Your task to perform on an android device: add a label to a message in the gmail app Image 0: 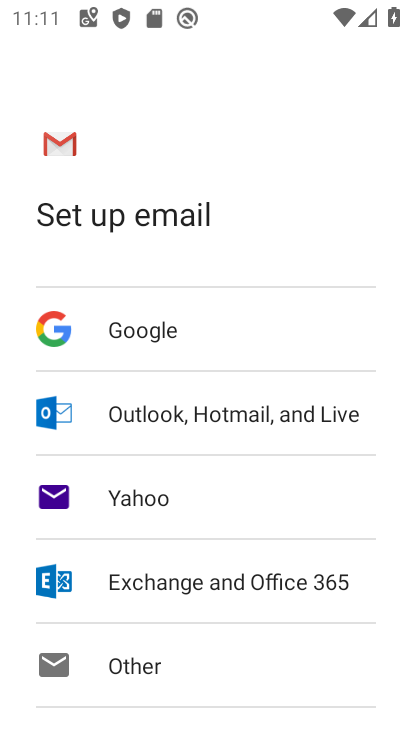
Step 0: press home button
Your task to perform on an android device: add a label to a message in the gmail app Image 1: 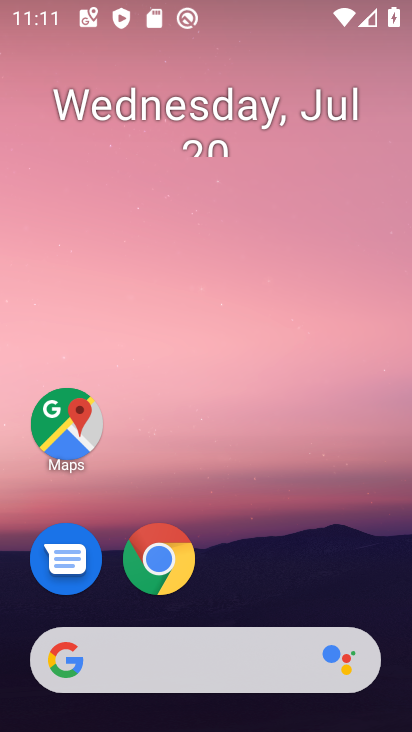
Step 1: drag from (175, 681) to (205, 133)
Your task to perform on an android device: add a label to a message in the gmail app Image 2: 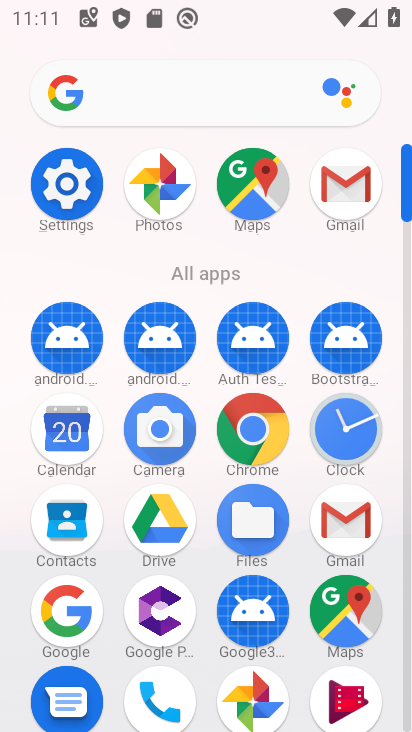
Step 2: click (345, 540)
Your task to perform on an android device: add a label to a message in the gmail app Image 3: 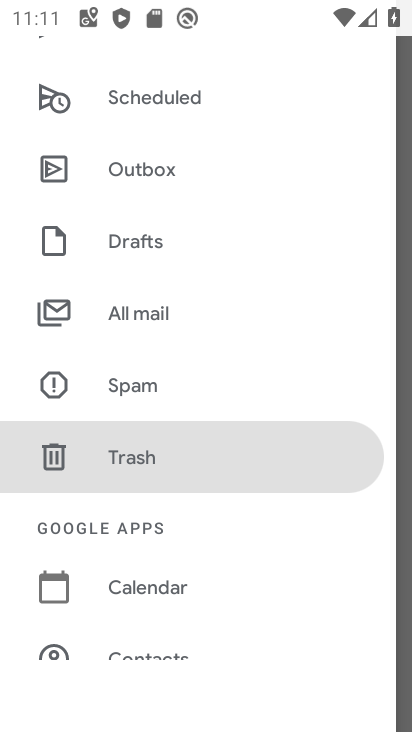
Step 3: task complete